Your task to perform on an android device: Open Wikipedia Image 0: 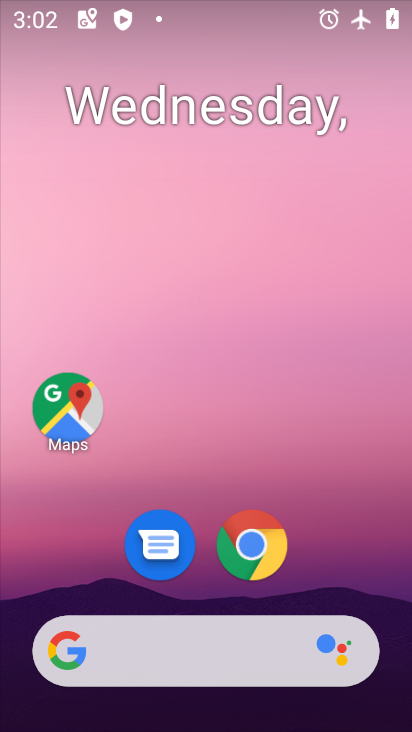
Step 0: click (253, 544)
Your task to perform on an android device: Open Wikipedia Image 1: 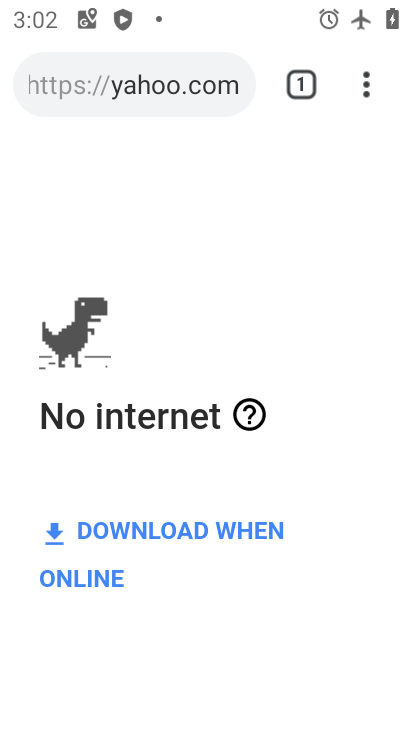
Step 1: click (216, 89)
Your task to perform on an android device: Open Wikipedia Image 2: 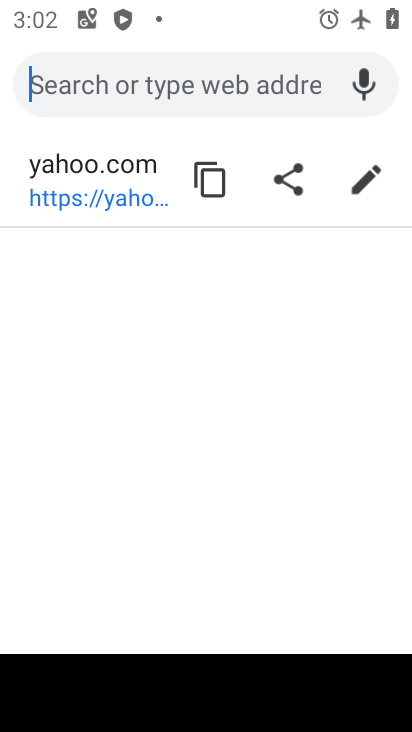
Step 2: type "wikipedia"
Your task to perform on an android device: Open Wikipedia Image 3: 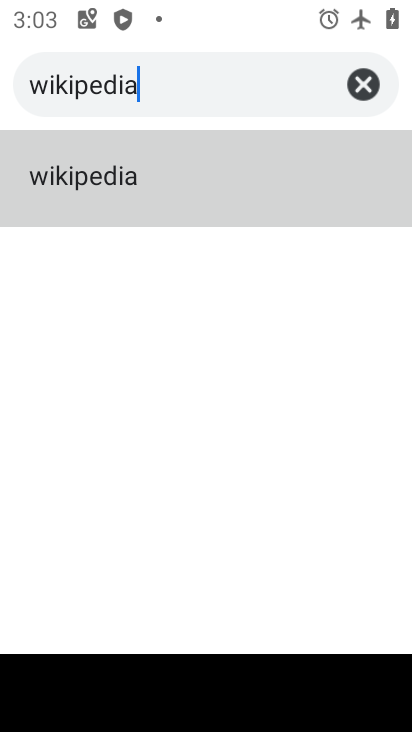
Step 3: click (48, 182)
Your task to perform on an android device: Open Wikipedia Image 4: 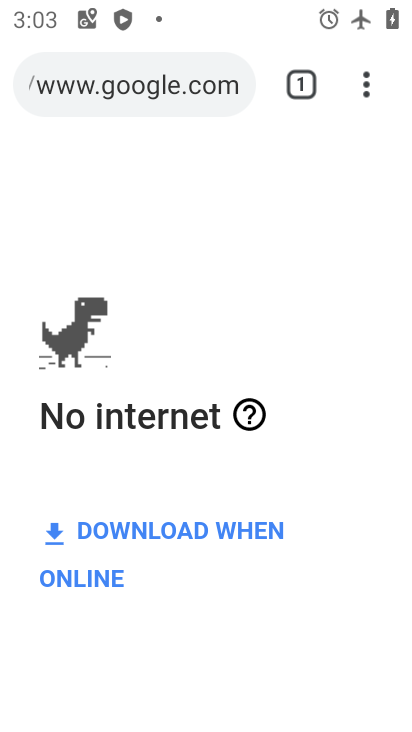
Step 4: task complete